Your task to perform on an android device: delete browsing data in the chrome app Image 0: 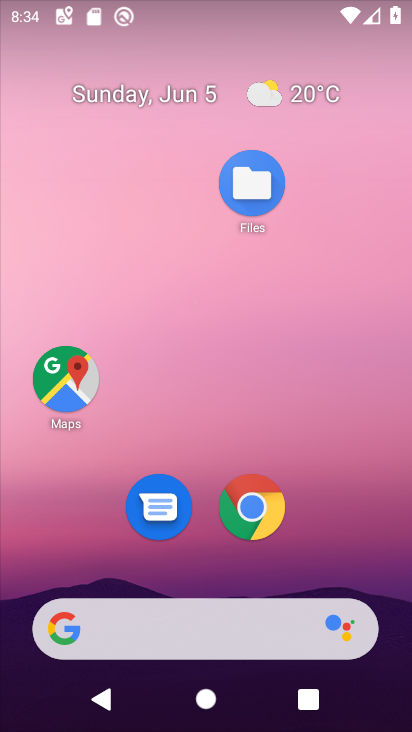
Step 0: click (249, 506)
Your task to perform on an android device: delete browsing data in the chrome app Image 1: 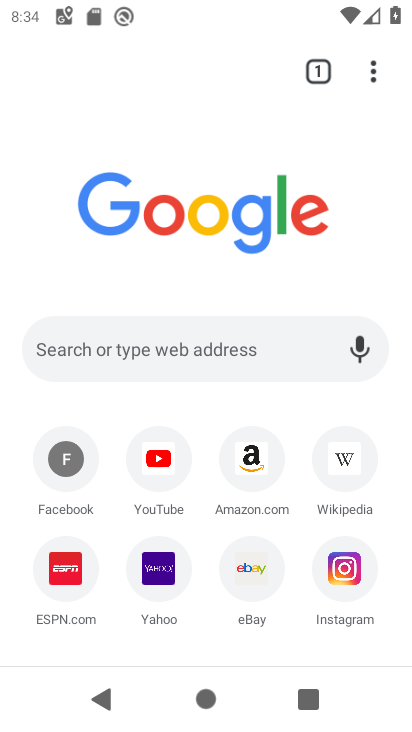
Step 1: click (368, 78)
Your task to perform on an android device: delete browsing data in the chrome app Image 2: 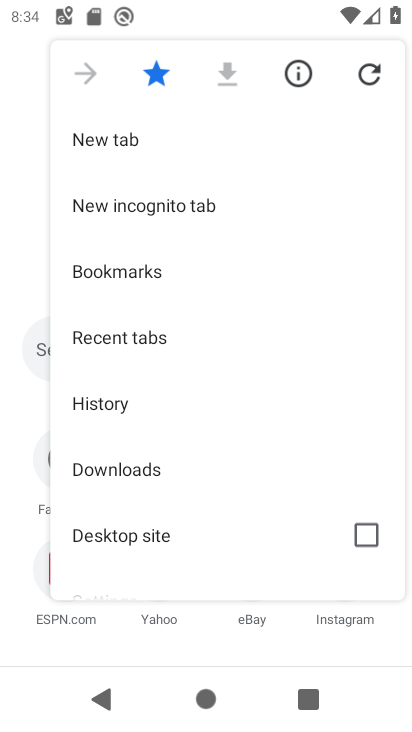
Step 2: click (109, 399)
Your task to perform on an android device: delete browsing data in the chrome app Image 3: 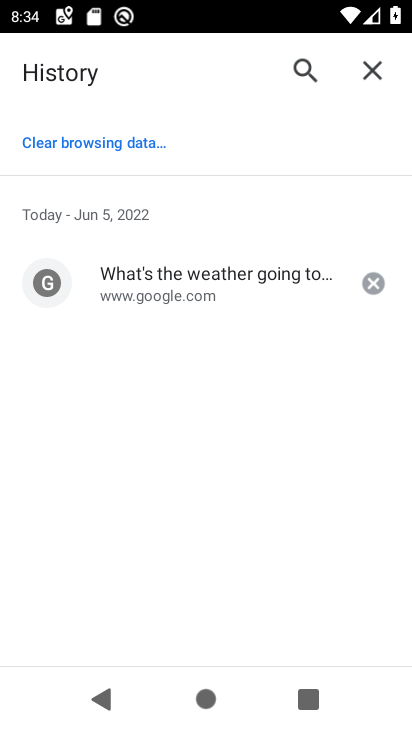
Step 3: click (108, 135)
Your task to perform on an android device: delete browsing data in the chrome app Image 4: 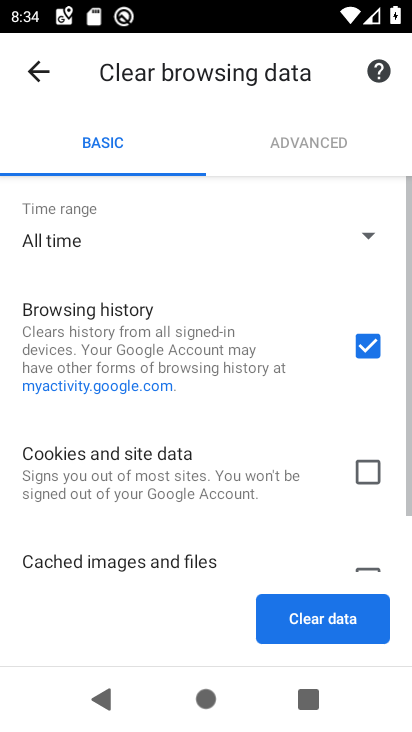
Step 4: click (328, 484)
Your task to perform on an android device: delete browsing data in the chrome app Image 5: 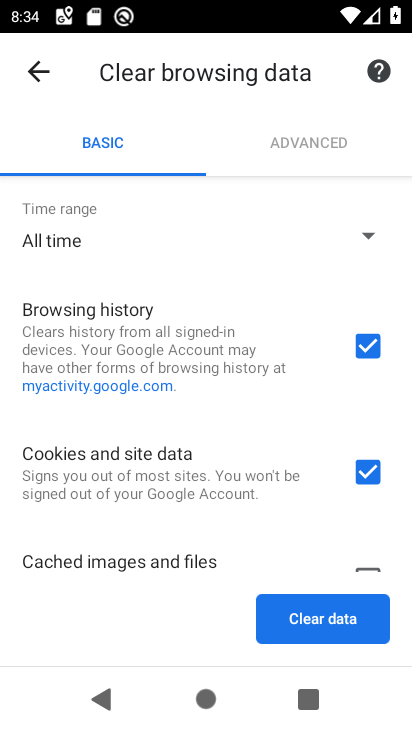
Step 5: click (304, 604)
Your task to perform on an android device: delete browsing data in the chrome app Image 6: 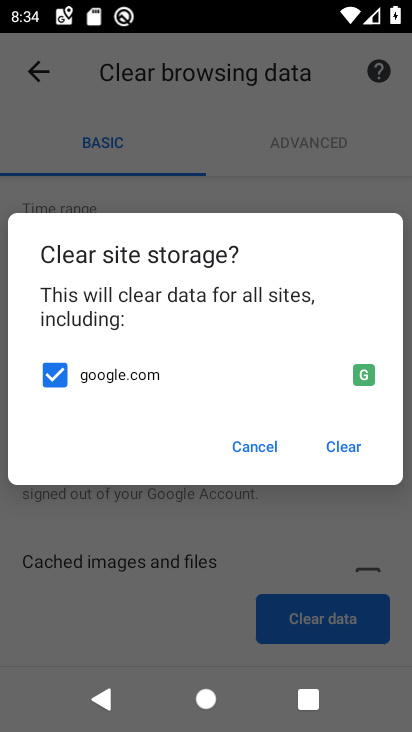
Step 6: click (351, 446)
Your task to perform on an android device: delete browsing data in the chrome app Image 7: 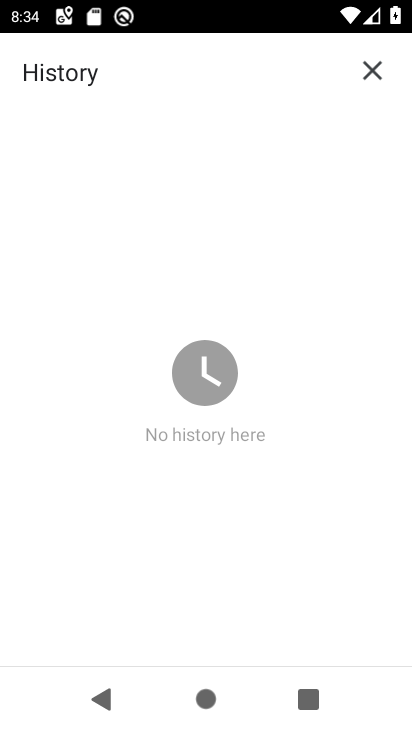
Step 7: task complete